Your task to perform on an android device: add a label to a message in the gmail app Image 0: 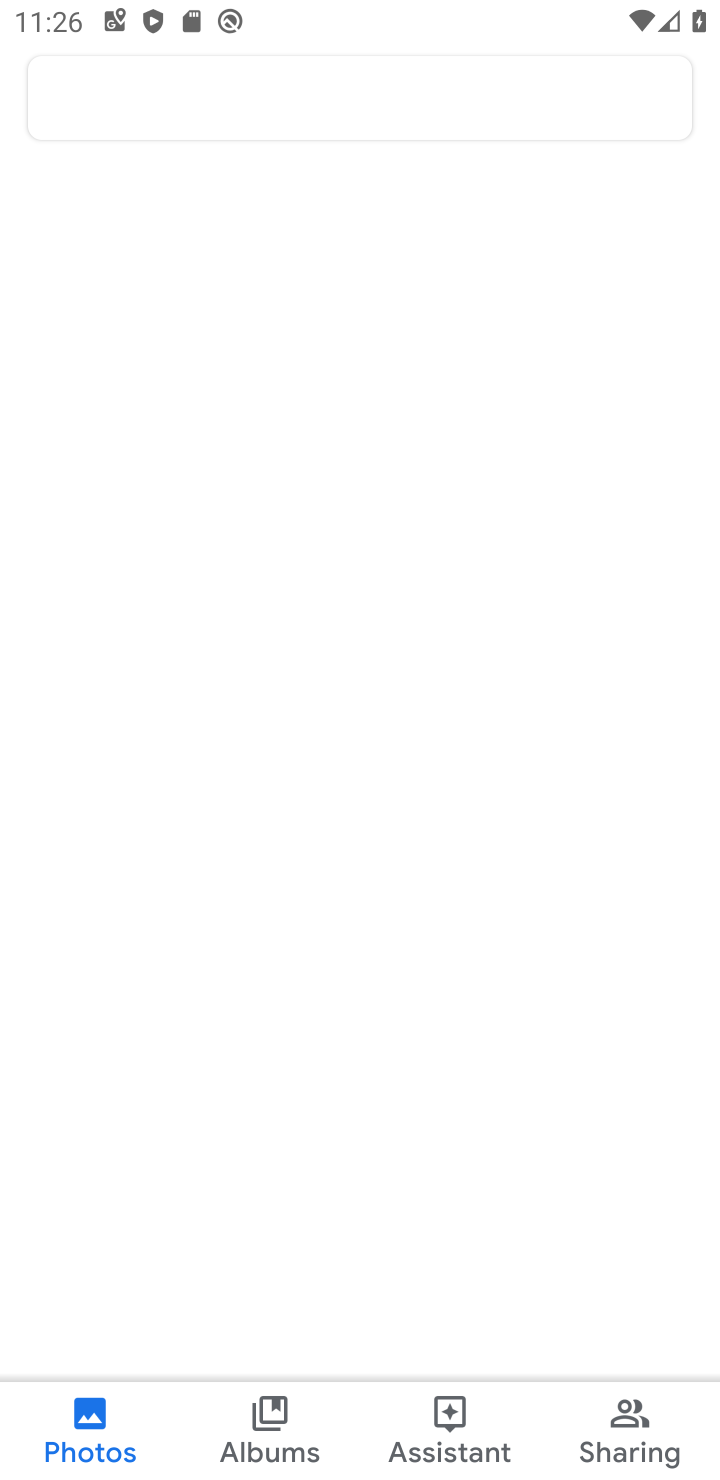
Step 0: drag from (567, 363) to (607, 231)
Your task to perform on an android device: add a label to a message in the gmail app Image 1: 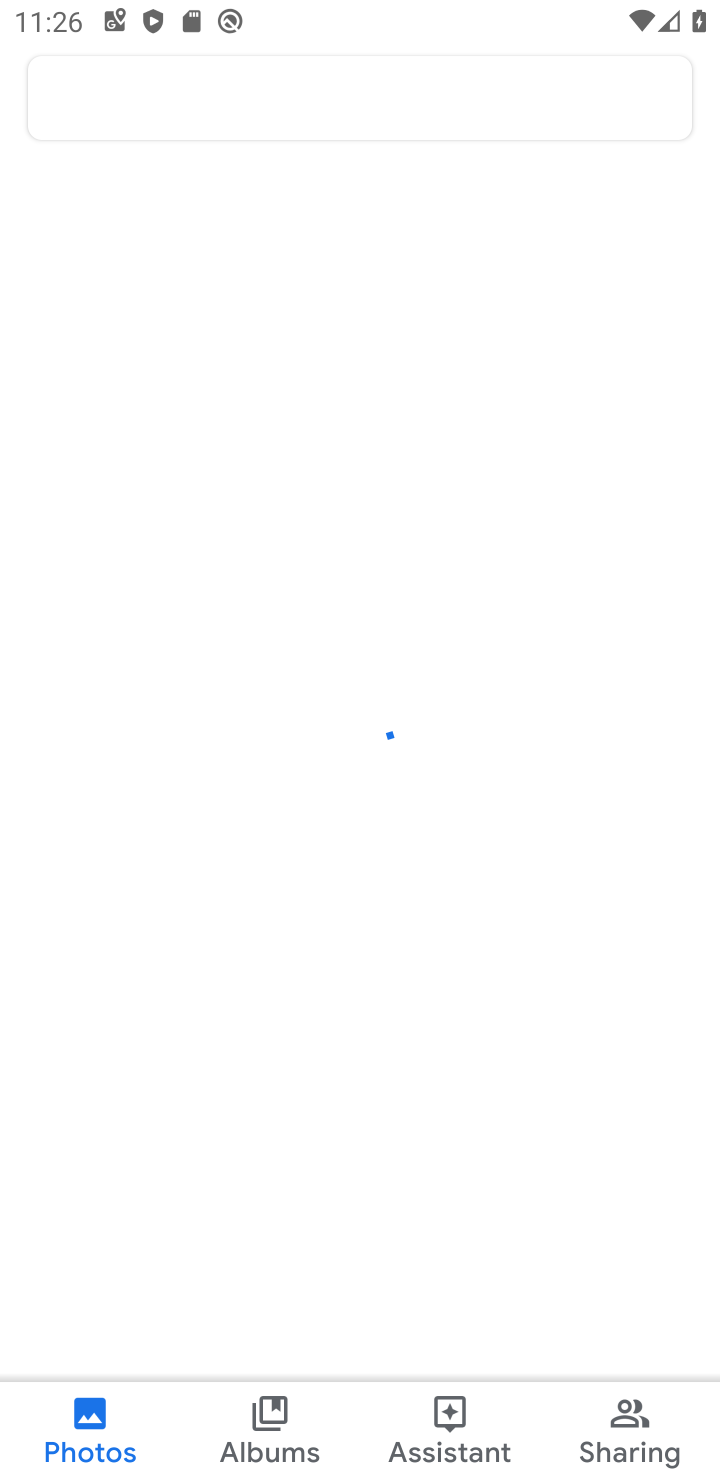
Step 1: press home button
Your task to perform on an android device: add a label to a message in the gmail app Image 2: 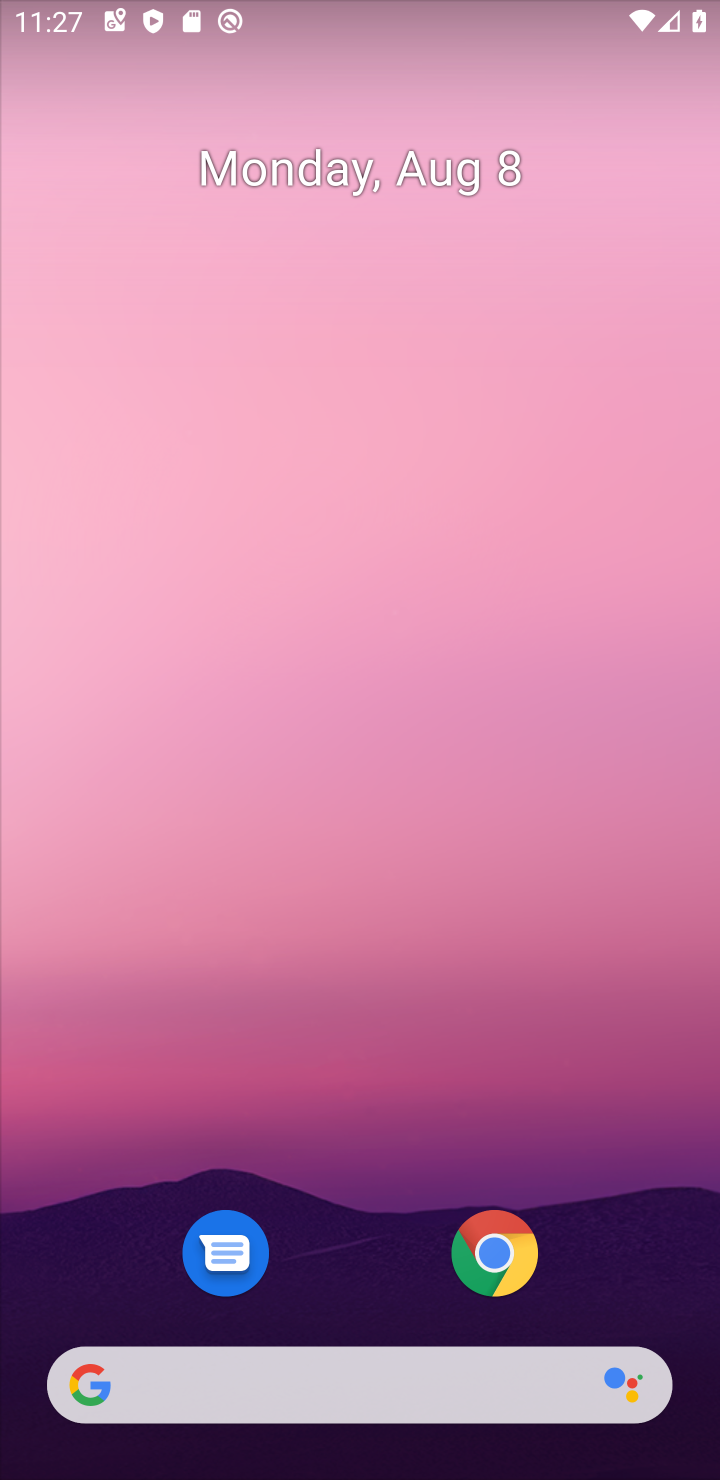
Step 2: drag from (348, 672) to (370, 299)
Your task to perform on an android device: add a label to a message in the gmail app Image 3: 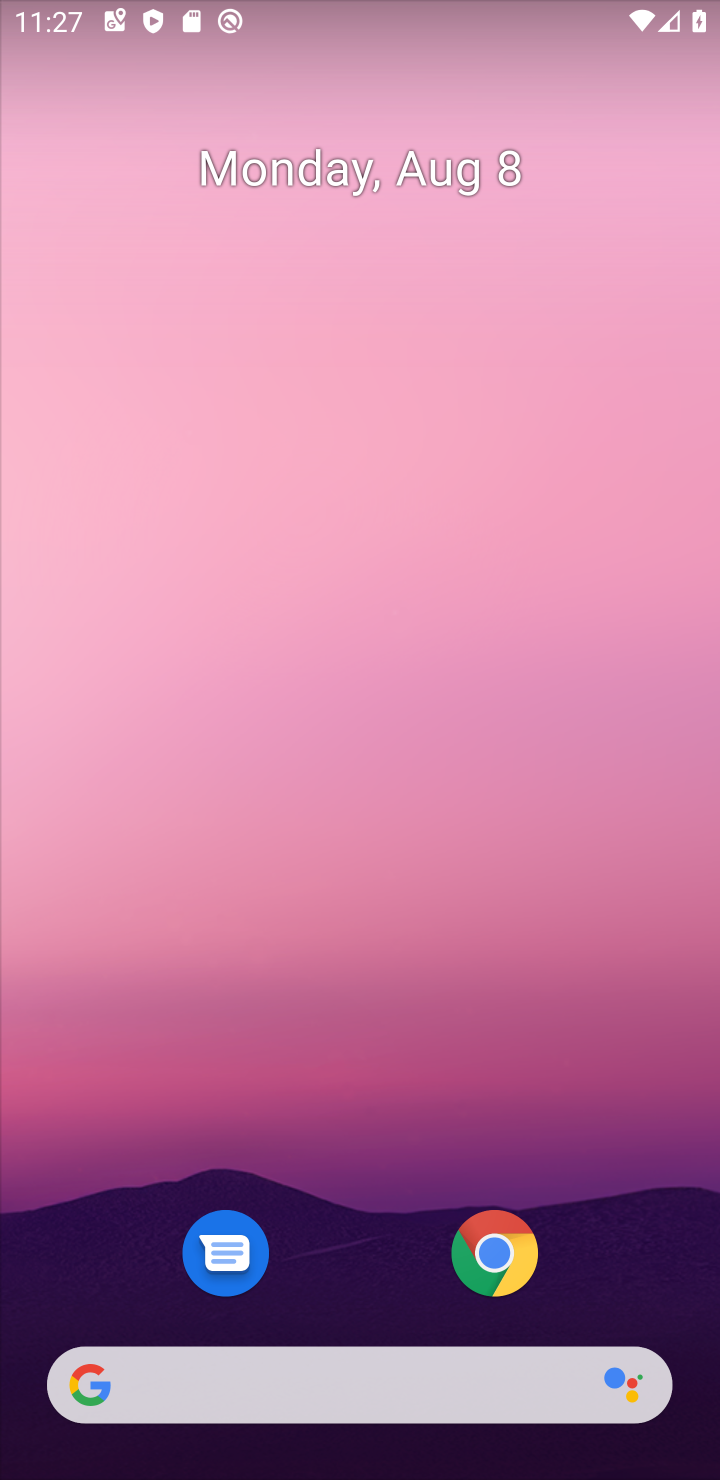
Step 3: drag from (295, 1379) to (327, 328)
Your task to perform on an android device: add a label to a message in the gmail app Image 4: 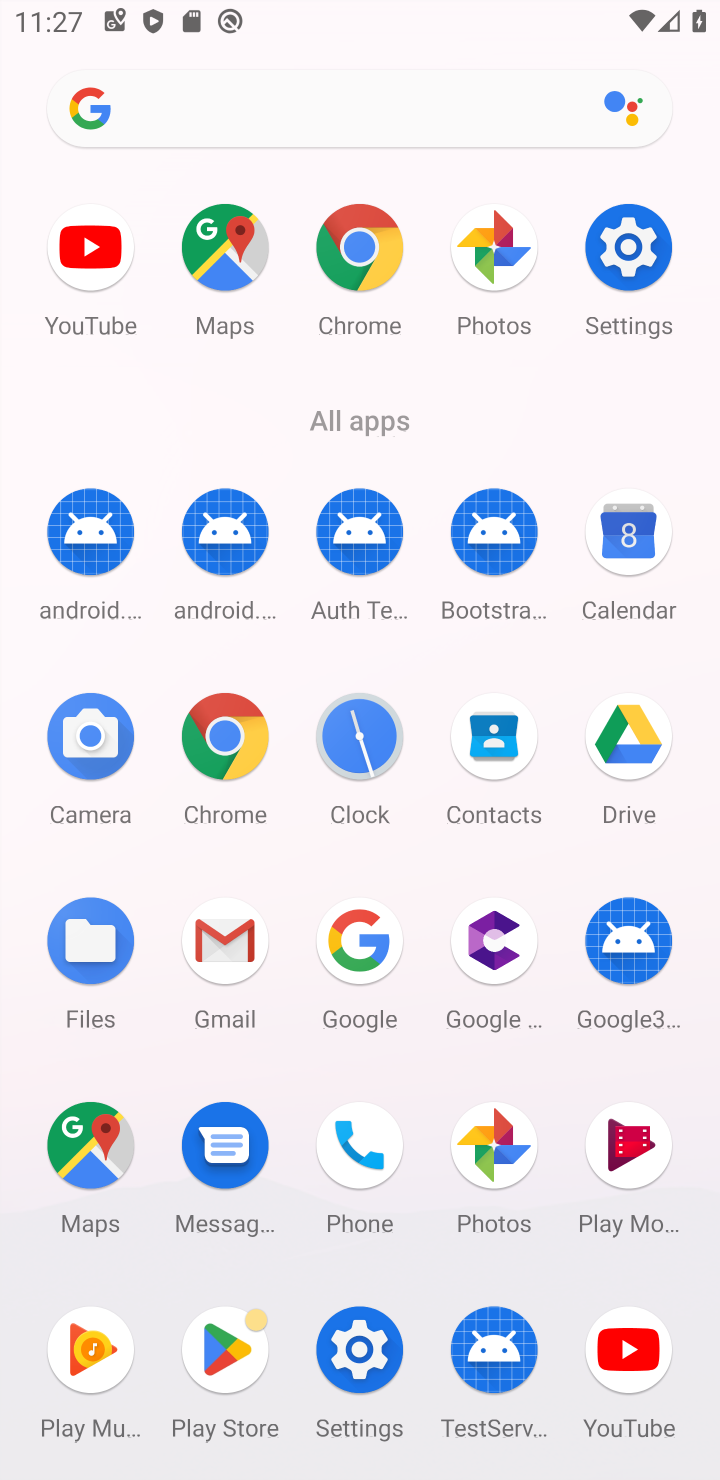
Step 4: click (213, 936)
Your task to perform on an android device: add a label to a message in the gmail app Image 5: 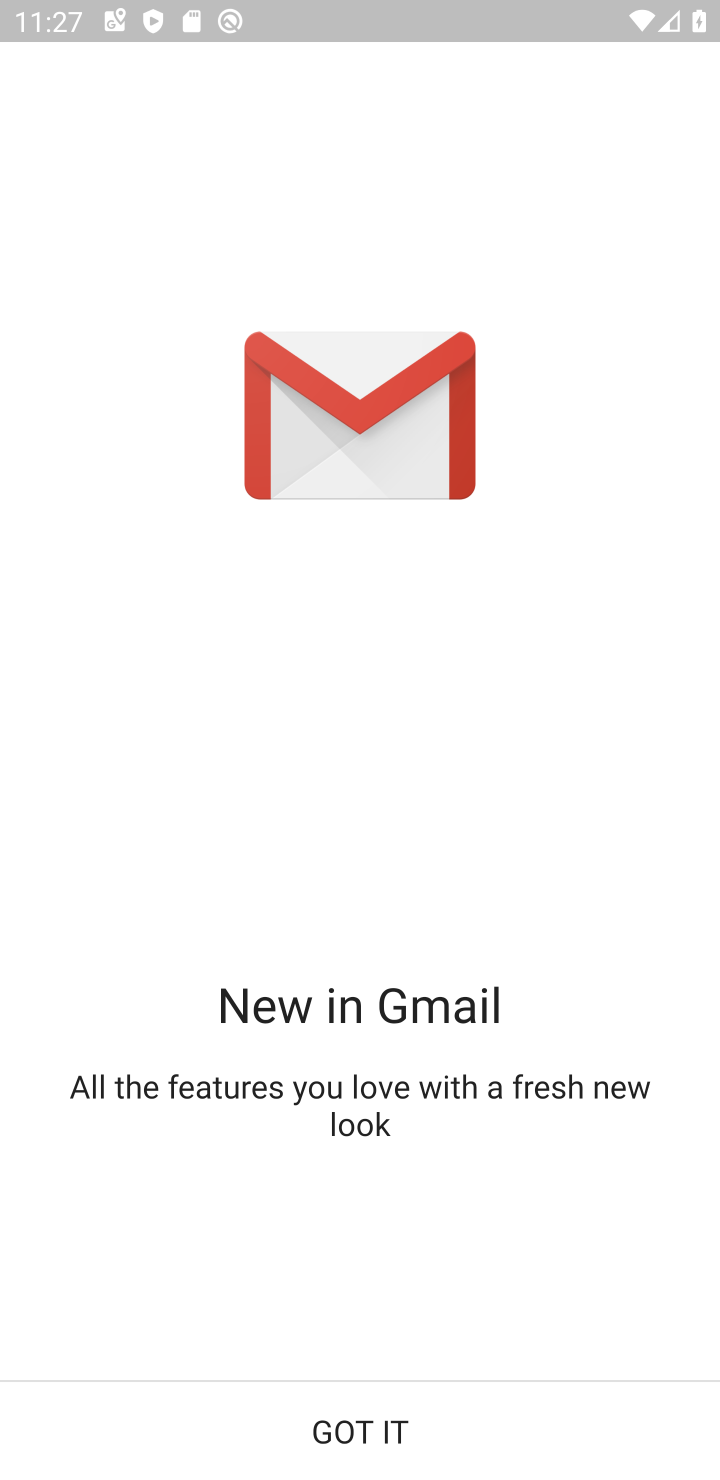
Step 5: click (441, 1421)
Your task to perform on an android device: add a label to a message in the gmail app Image 6: 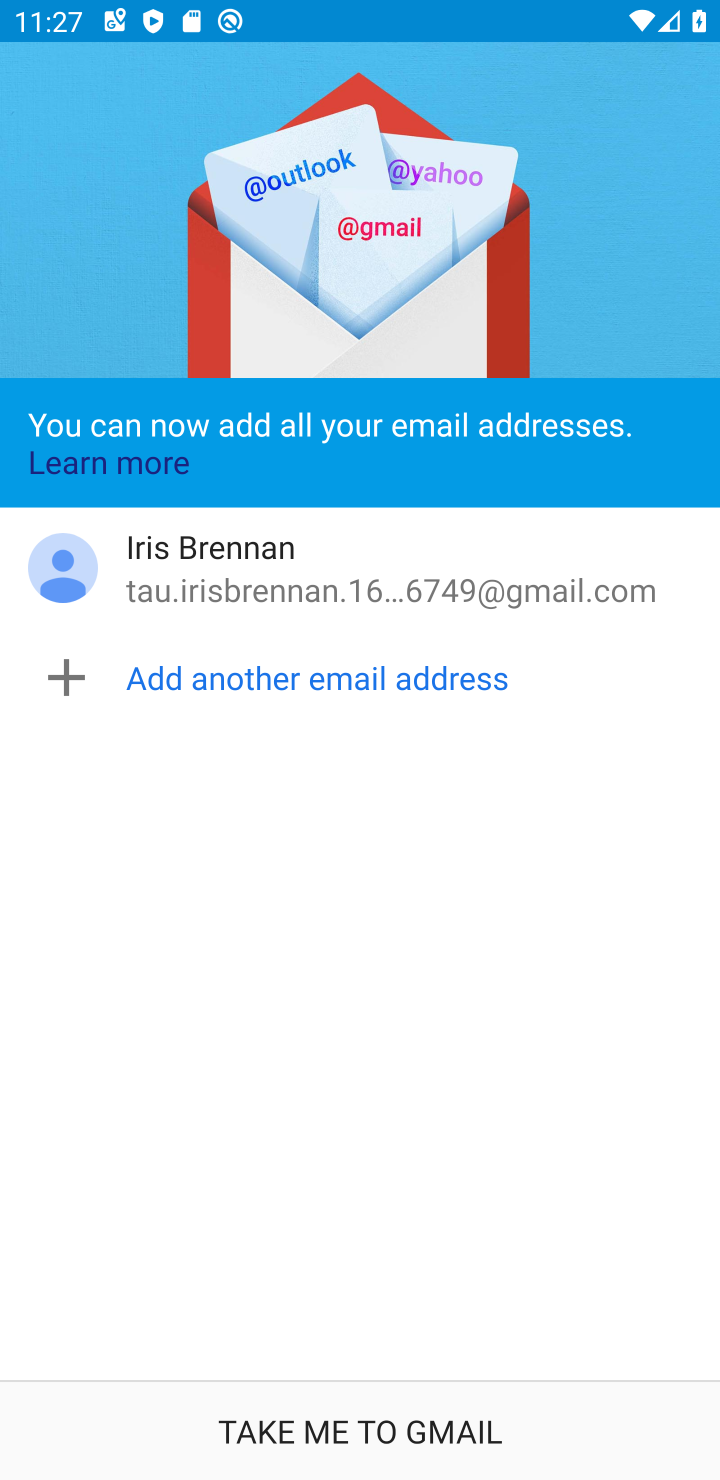
Step 6: click (314, 1435)
Your task to perform on an android device: add a label to a message in the gmail app Image 7: 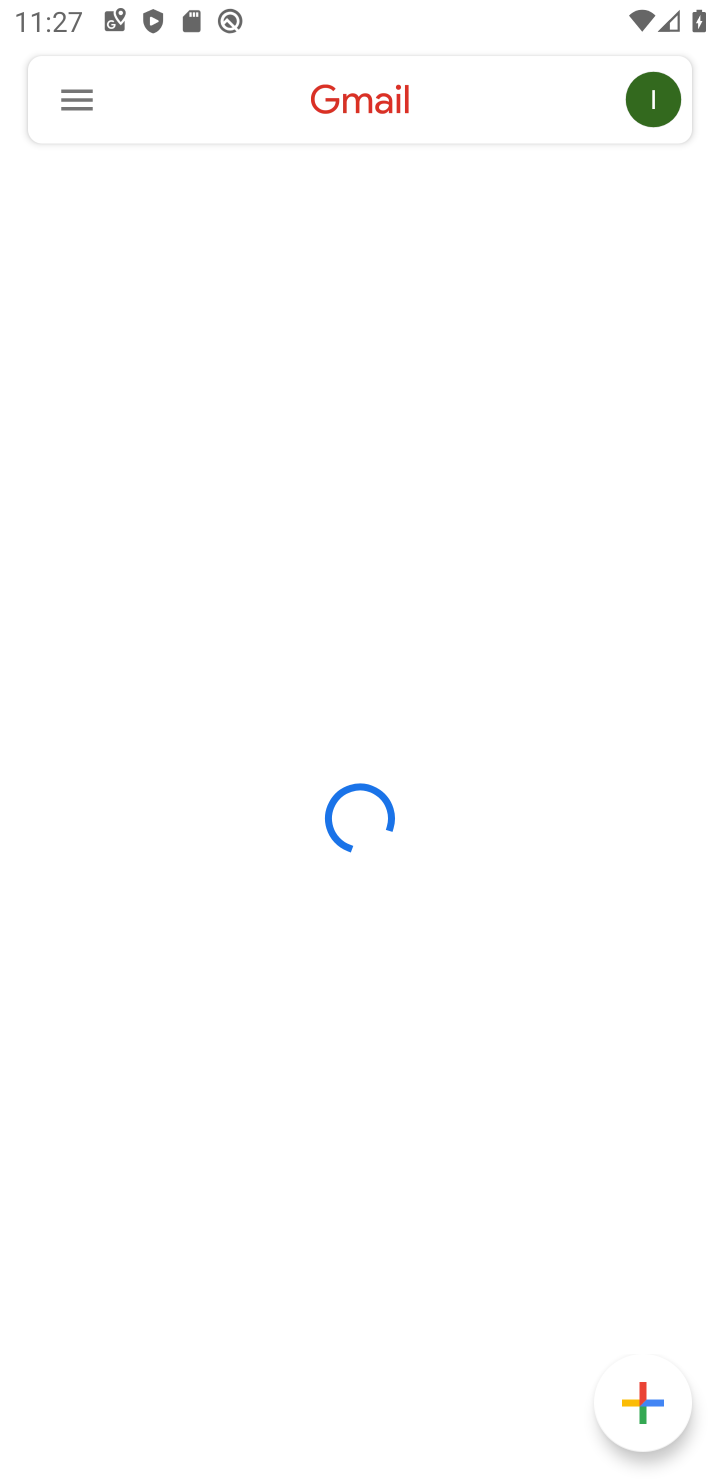
Step 7: click (100, 83)
Your task to perform on an android device: add a label to a message in the gmail app Image 8: 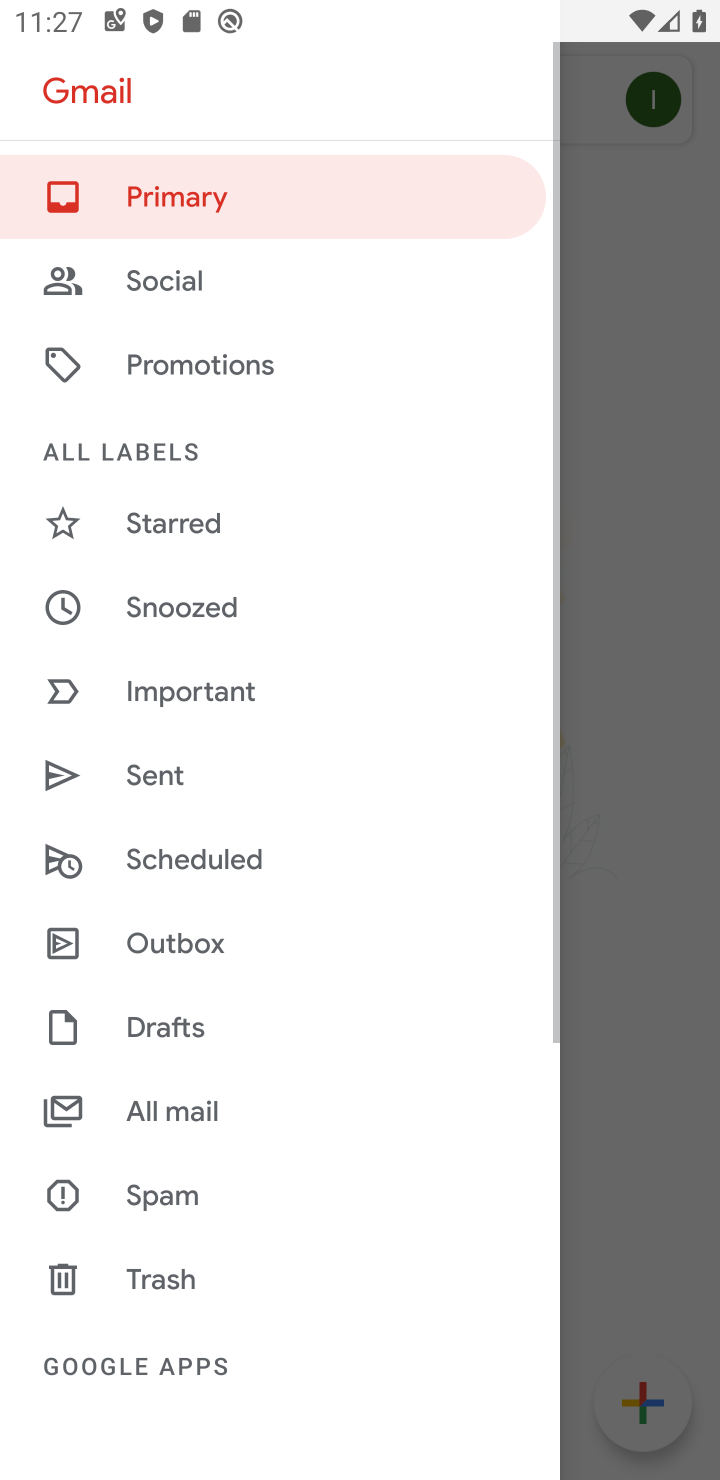
Step 8: click (160, 1118)
Your task to perform on an android device: add a label to a message in the gmail app Image 9: 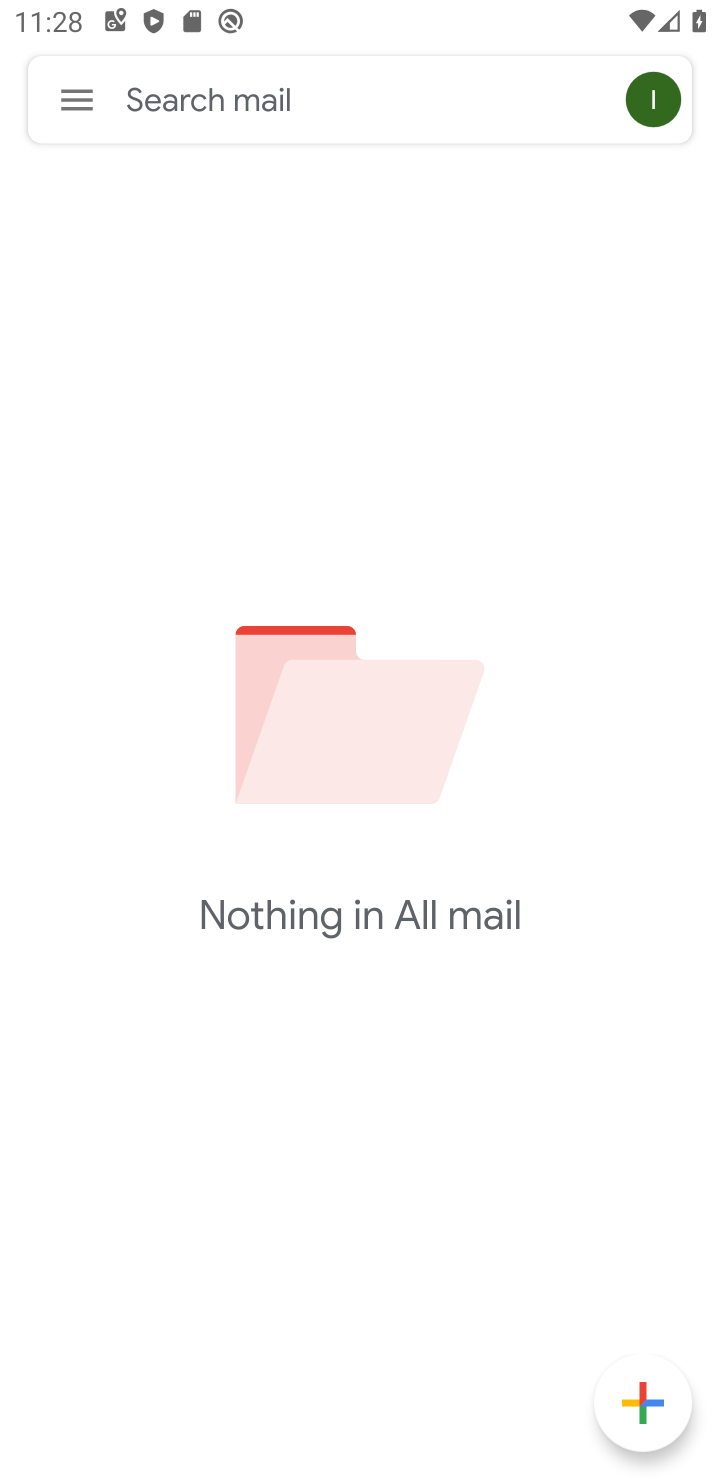
Step 9: task complete